Your task to perform on an android device: What's on my calendar tomorrow? Image 0: 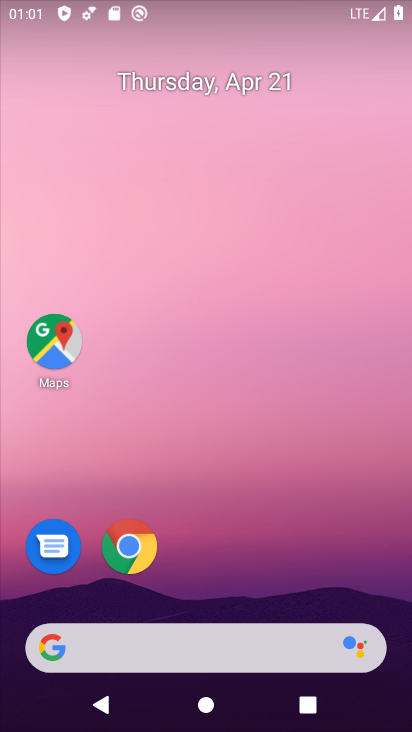
Step 0: drag from (337, 553) to (294, 156)
Your task to perform on an android device: What's on my calendar tomorrow? Image 1: 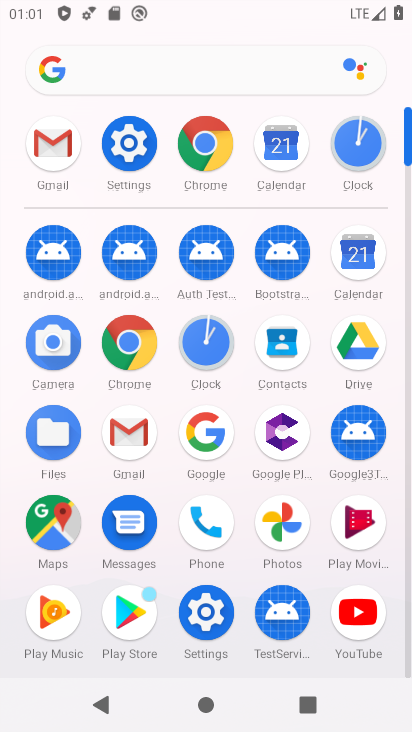
Step 1: click (354, 259)
Your task to perform on an android device: What's on my calendar tomorrow? Image 2: 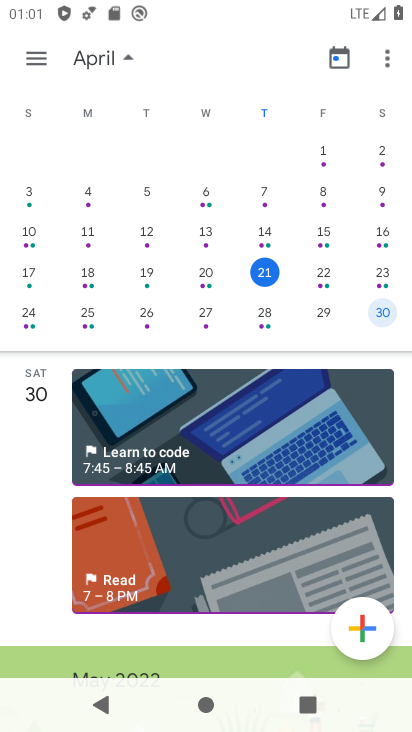
Step 2: click (323, 281)
Your task to perform on an android device: What's on my calendar tomorrow? Image 3: 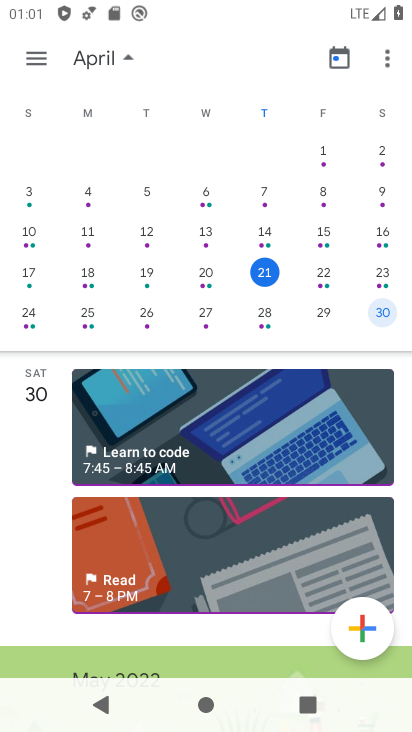
Step 3: click (321, 274)
Your task to perform on an android device: What's on my calendar tomorrow? Image 4: 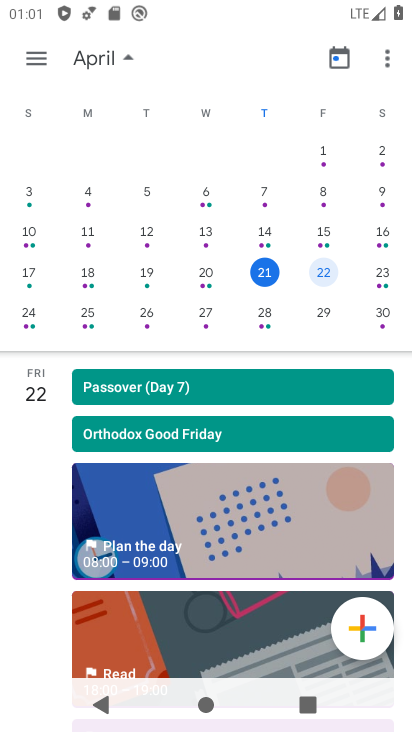
Step 4: task complete